Your task to perform on an android device: Open calendar and show me the second week of next month Image 0: 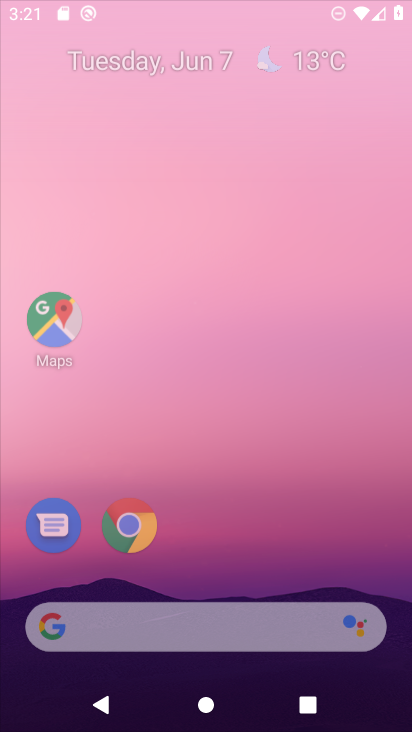
Step 0: click (250, 205)
Your task to perform on an android device: Open calendar and show me the second week of next month Image 1: 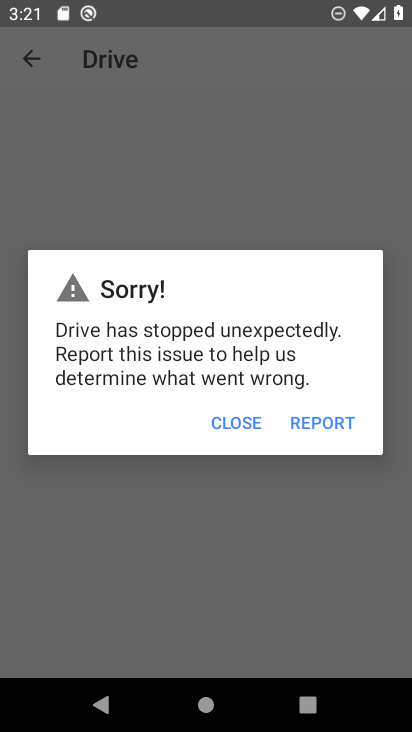
Step 1: press home button
Your task to perform on an android device: Open calendar and show me the second week of next month Image 2: 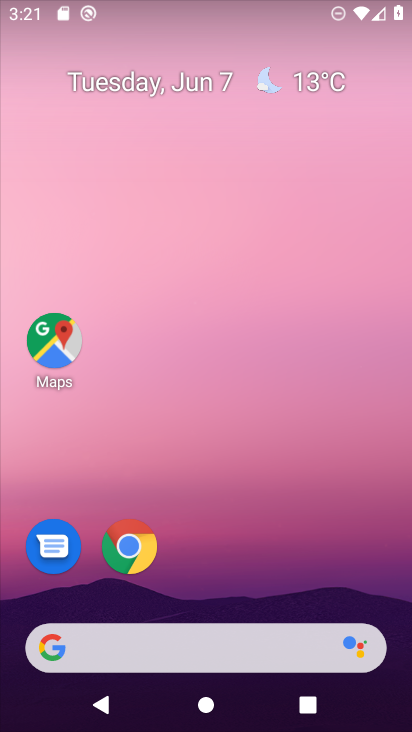
Step 2: drag from (44, 520) to (345, 146)
Your task to perform on an android device: Open calendar and show me the second week of next month Image 3: 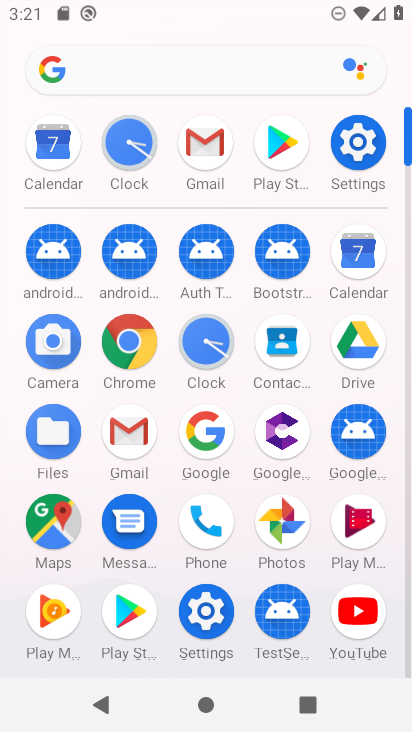
Step 3: click (339, 247)
Your task to perform on an android device: Open calendar and show me the second week of next month Image 4: 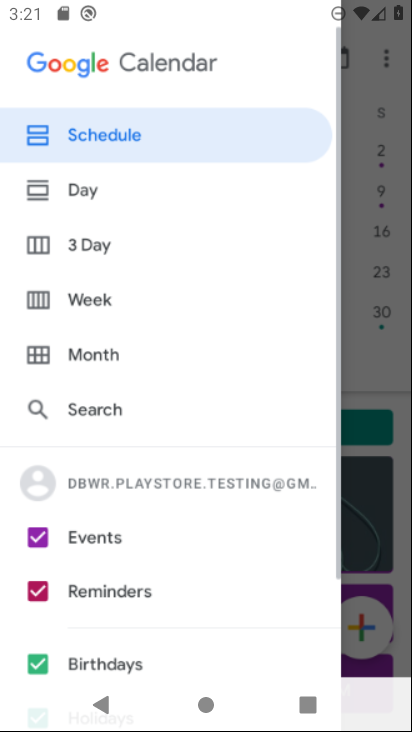
Step 4: click (371, 226)
Your task to perform on an android device: Open calendar and show me the second week of next month Image 5: 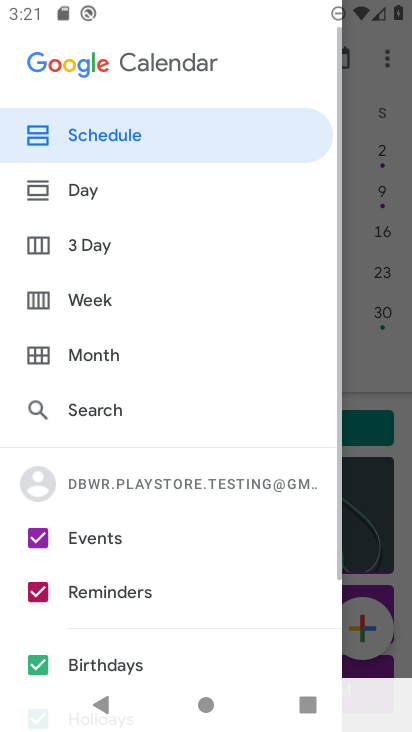
Step 5: click (380, 271)
Your task to perform on an android device: Open calendar and show me the second week of next month Image 6: 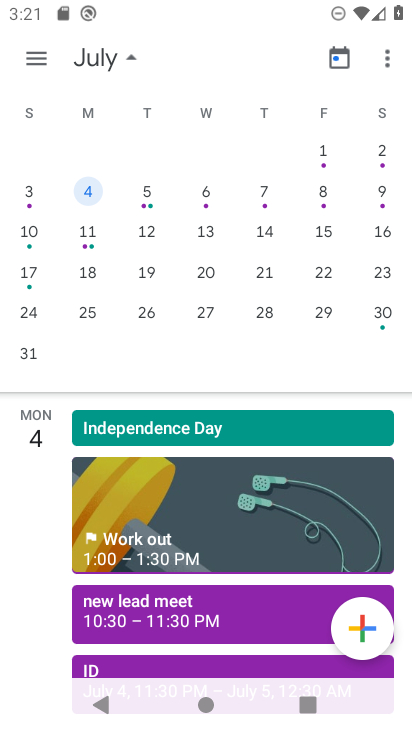
Step 6: click (150, 193)
Your task to perform on an android device: Open calendar and show me the second week of next month Image 7: 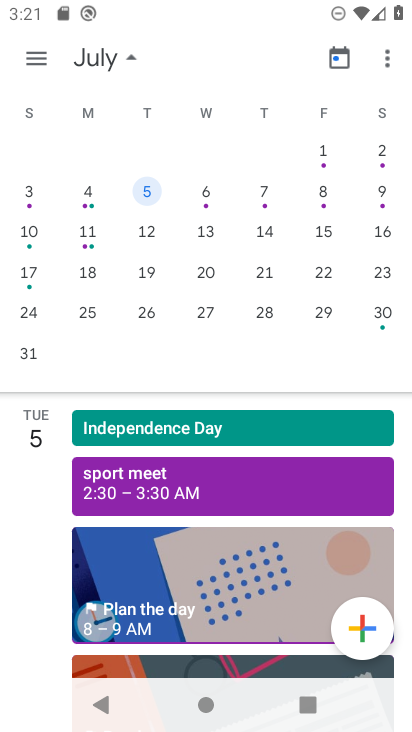
Step 7: click (216, 192)
Your task to perform on an android device: Open calendar and show me the second week of next month Image 8: 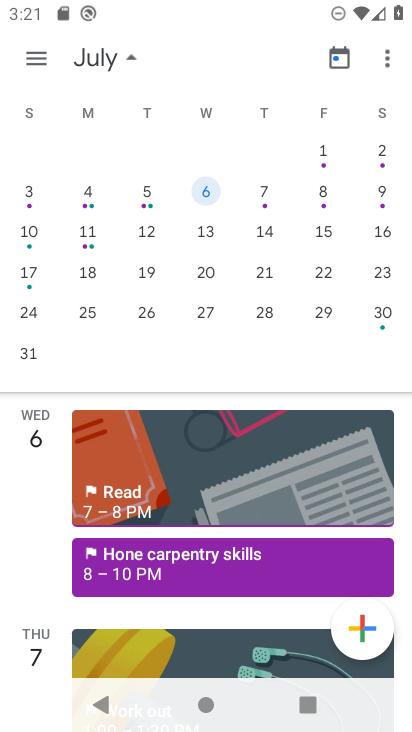
Step 8: task complete